Your task to perform on an android device: Open calendar and show me the second week of next month Image 0: 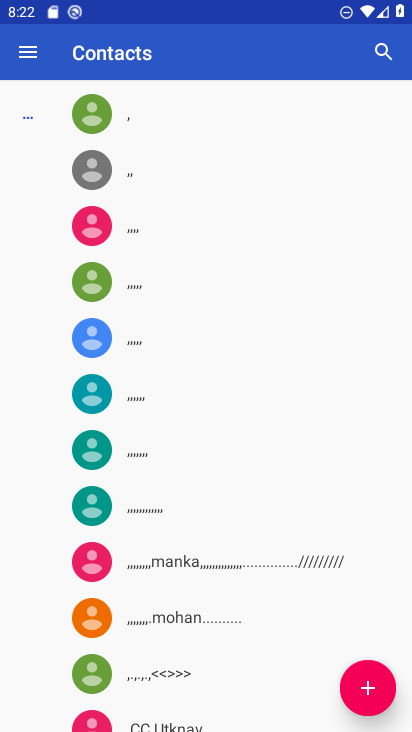
Step 0: press home button
Your task to perform on an android device: Open calendar and show me the second week of next month Image 1: 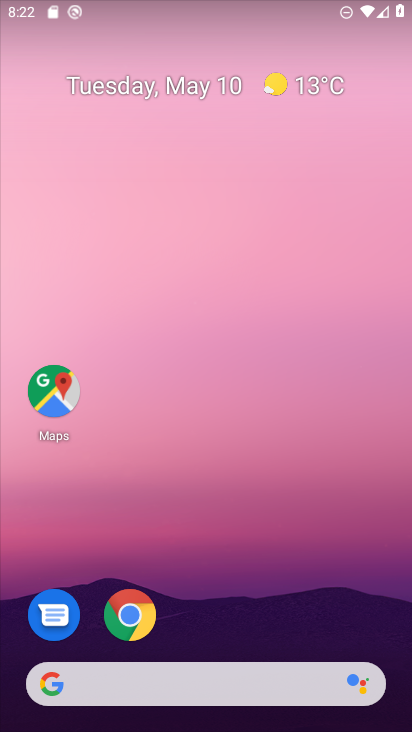
Step 1: drag from (234, 570) to (158, 109)
Your task to perform on an android device: Open calendar and show me the second week of next month Image 2: 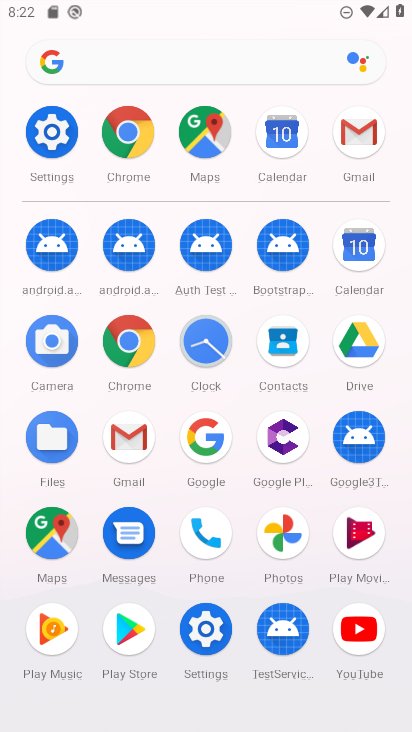
Step 2: click (361, 243)
Your task to perform on an android device: Open calendar and show me the second week of next month Image 3: 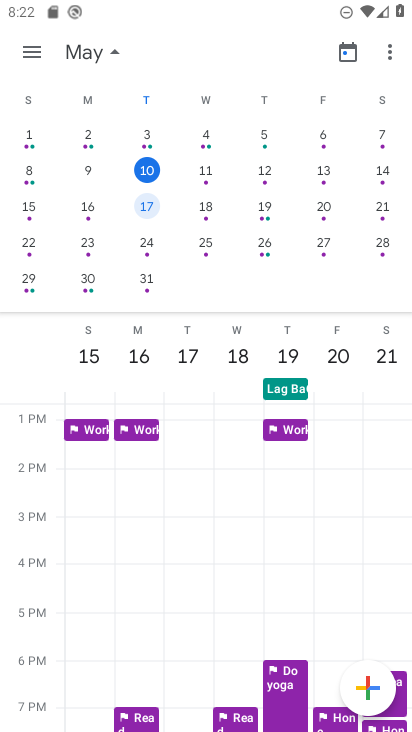
Step 3: drag from (354, 194) to (21, 190)
Your task to perform on an android device: Open calendar and show me the second week of next month Image 4: 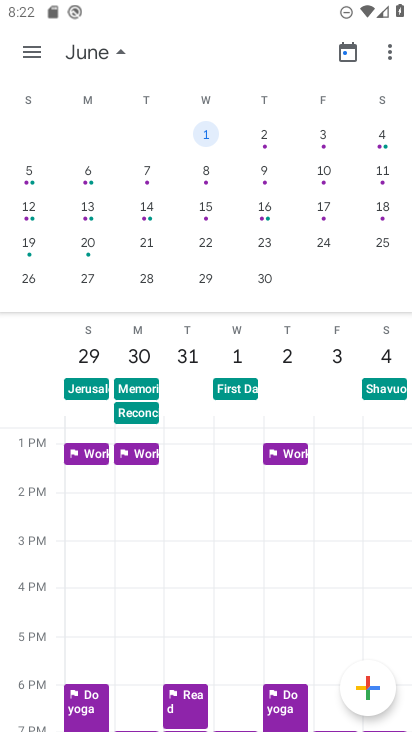
Step 4: click (206, 169)
Your task to perform on an android device: Open calendar and show me the second week of next month Image 5: 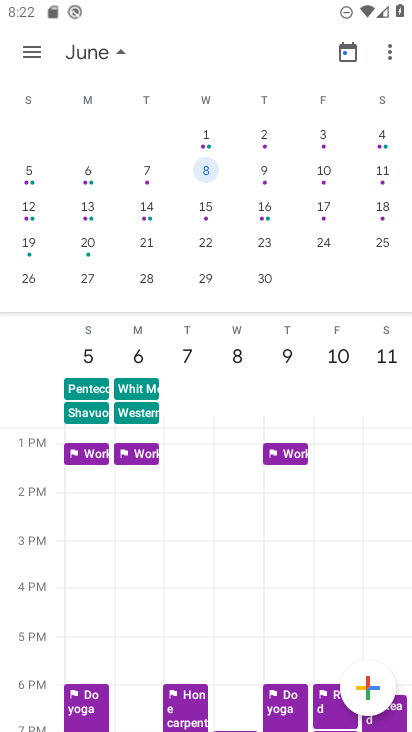
Step 5: task complete